Your task to perform on an android device: Search for seafood restaurants on Google Maps Image 0: 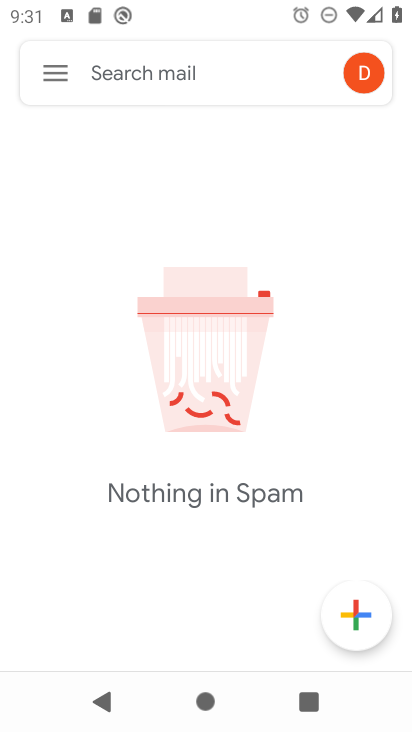
Step 0: press home button
Your task to perform on an android device: Search for seafood restaurants on Google Maps Image 1: 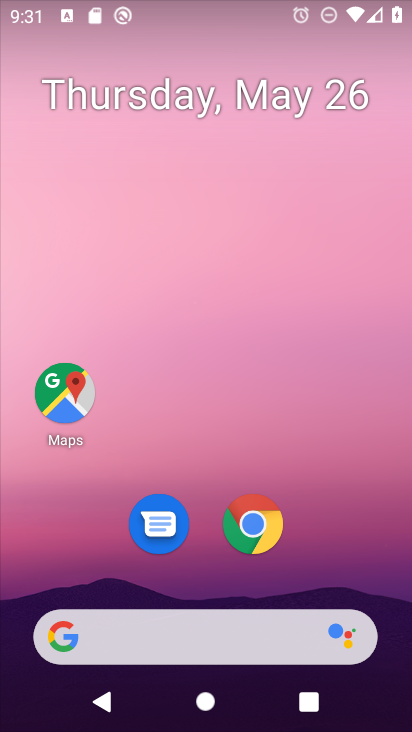
Step 1: click (69, 395)
Your task to perform on an android device: Search for seafood restaurants on Google Maps Image 2: 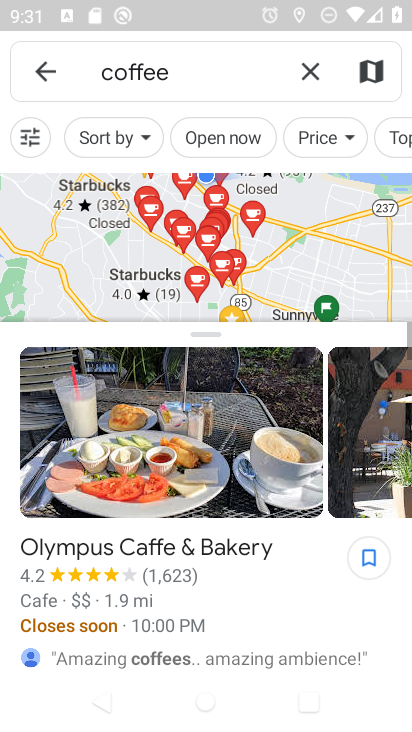
Step 2: click (305, 62)
Your task to perform on an android device: Search for seafood restaurants on Google Maps Image 3: 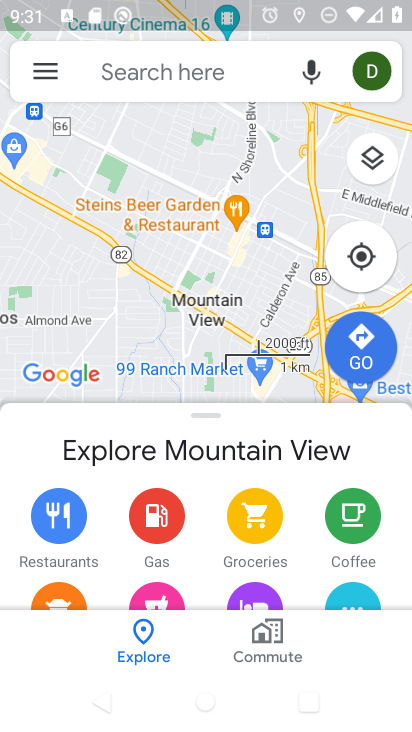
Step 3: click (202, 72)
Your task to perform on an android device: Search for seafood restaurants on Google Maps Image 4: 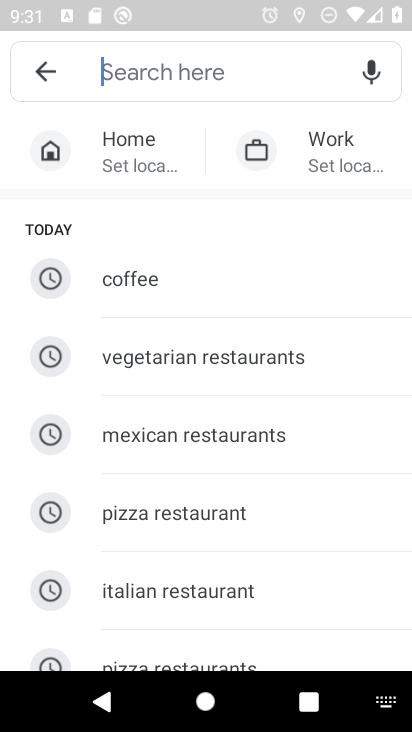
Step 4: drag from (204, 496) to (212, 229)
Your task to perform on an android device: Search for seafood restaurants on Google Maps Image 5: 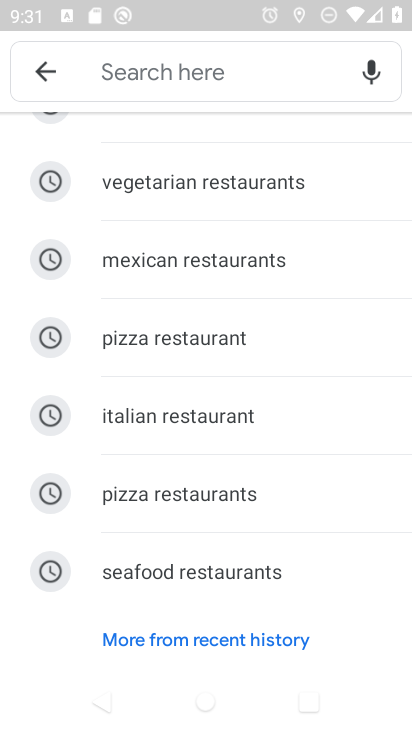
Step 5: click (221, 563)
Your task to perform on an android device: Search for seafood restaurants on Google Maps Image 6: 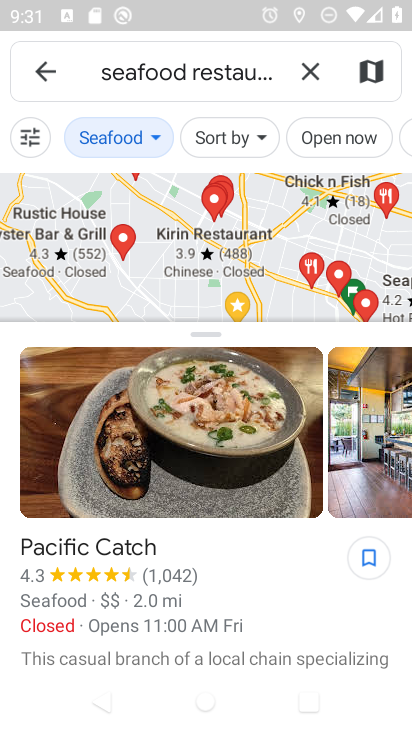
Step 6: task complete